Your task to perform on an android device: change the clock display to analog Image 0: 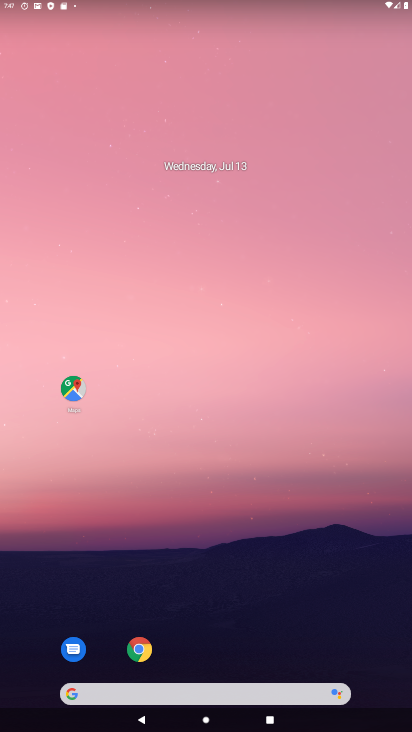
Step 0: drag from (188, 645) to (183, 162)
Your task to perform on an android device: change the clock display to analog Image 1: 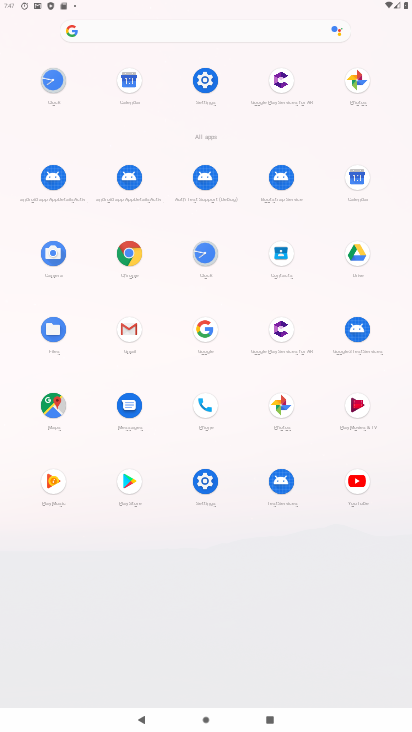
Step 1: click (200, 260)
Your task to perform on an android device: change the clock display to analog Image 2: 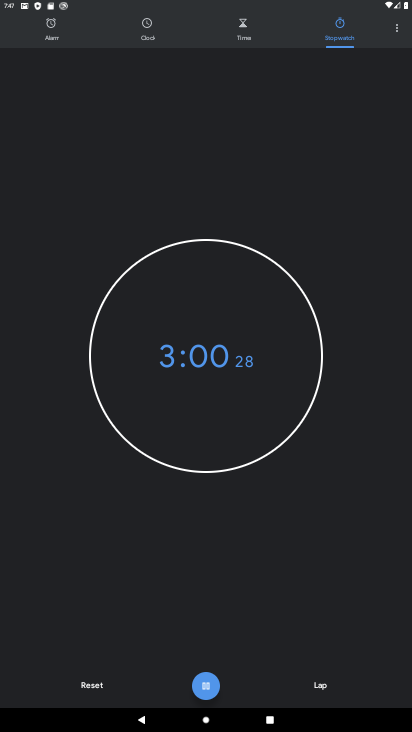
Step 2: click (396, 35)
Your task to perform on an android device: change the clock display to analog Image 3: 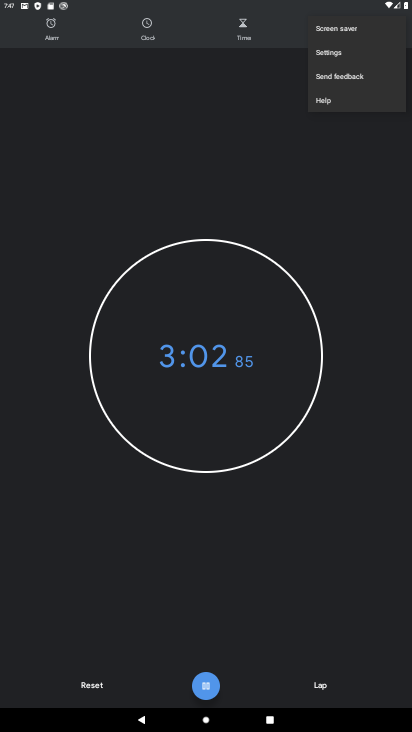
Step 3: click (337, 59)
Your task to perform on an android device: change the clock display to analog Image 4: 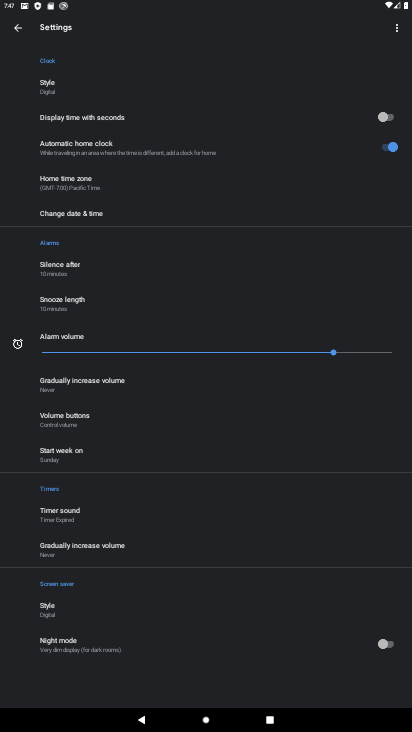
Step 4: click (68, 90)
Your task to perform on an android device: change the clock display to analog Image 5: 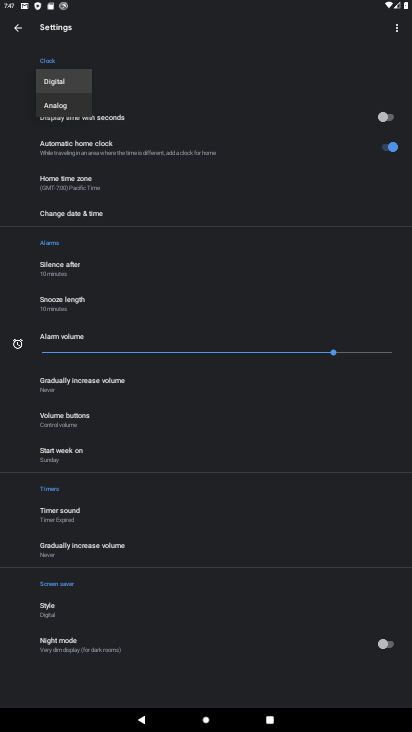
Step 5: click (67, 106)
Your task to perform on an android device: change the clock display to analog Image 6: 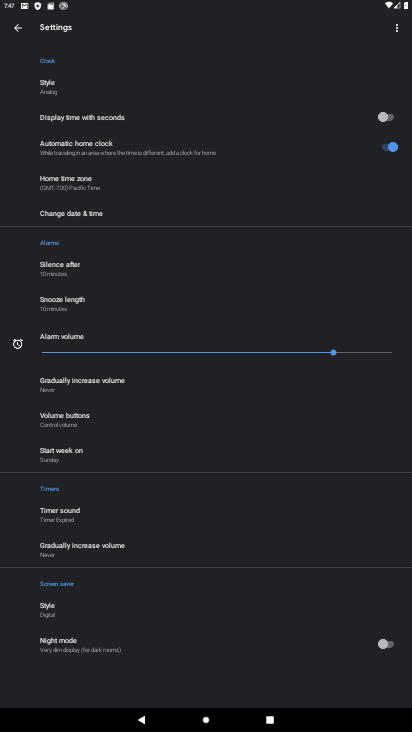
Step 6: task complete